Your task to perform on an android device: Search for Italian restaurants on Maps Image 0: 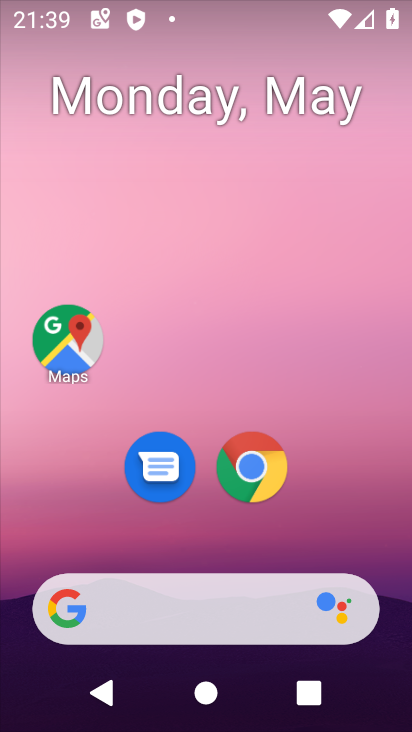
Step 0: press home button
Your task to perform on an android device: Search for Italian restaurants on Maps Image 1: 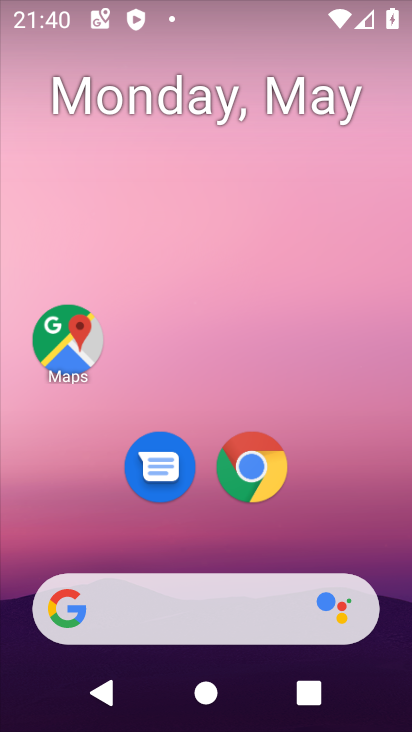
Step 1: drag from (271, 650) to (0, 276)
Your task to perform on an android device: Search for Italian restaurants on Maps Image 2: 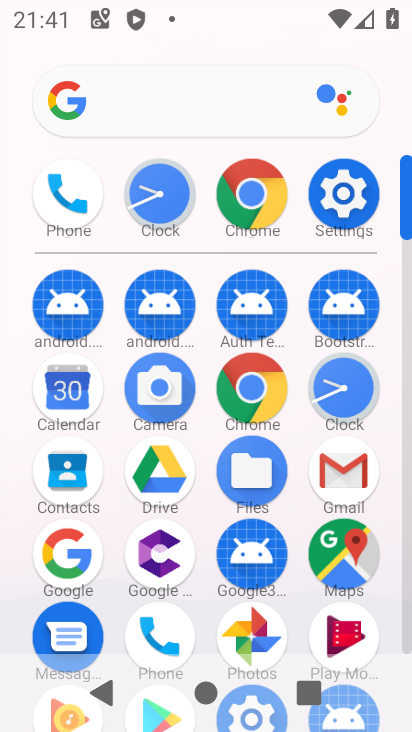
Step 2: click (343, 553)
Your task to perform on an android device: Search for Italian restaurants on Maps Image 3: 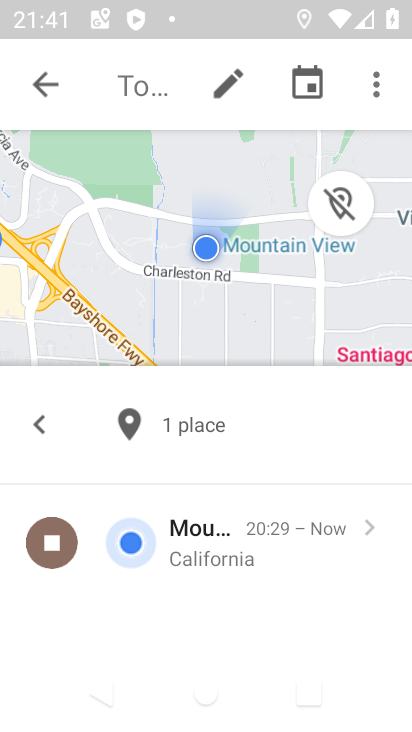
Step 3: click (41, 75)
Your task to perform on an android device: Search for Italian restaurants on Maps Image 4: 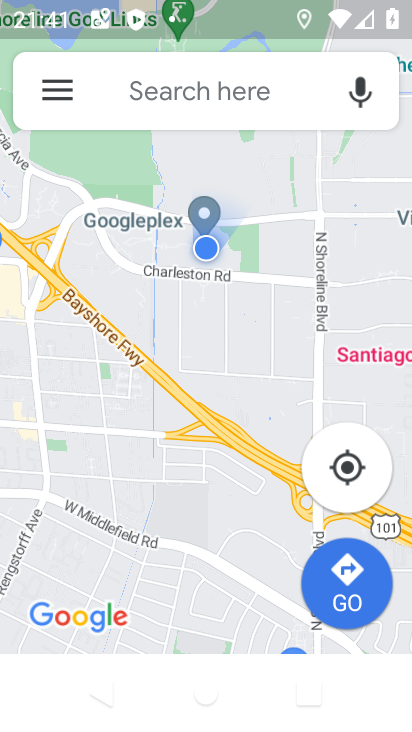
Step 4: task complete